Your task to perform on an android device: Open privacy settings Image 0: 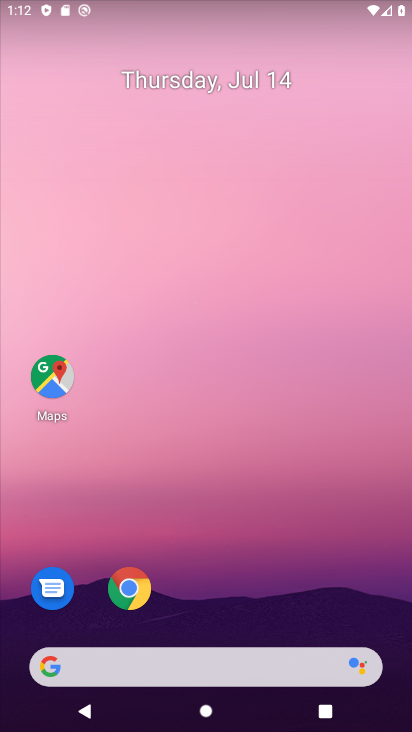
Step 0: drag from (281, 702) to (358, 135)
Your task to perform on an android device: Open privacy settings Image 1: 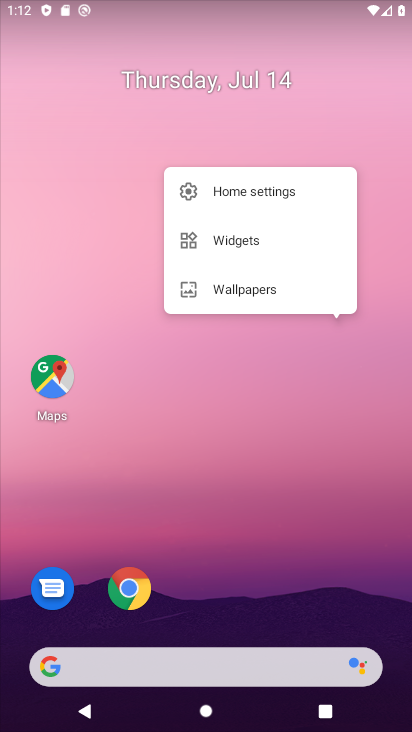
Step 1: click (262, 703)
Your task to perform on an android device: Open privacy settings Image 2: 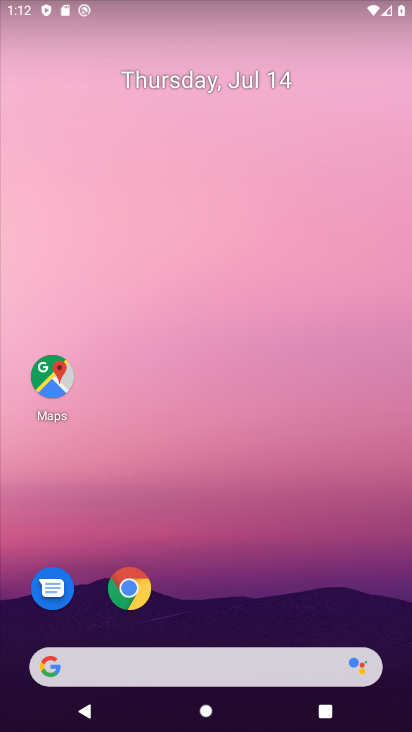
Step 2: drag from (262, 703) to (258, 32)
Your task to perform on an android device: Open privacy settings Image 3: 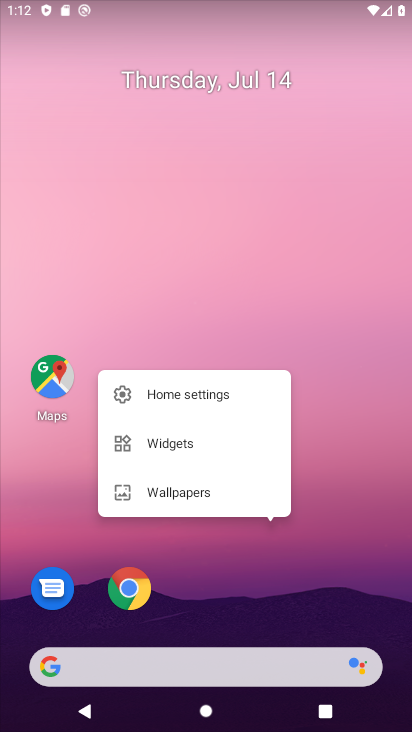
Step 3: click (235, 703)
Your task to perform on an android device: Open privacy settings Image 4: 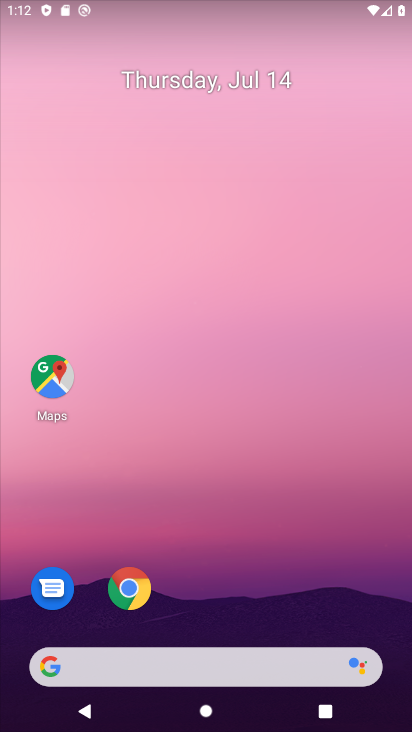
Step 4: drag from (271, 584) to (350, 12)
Your task to perform on an android device: Open privacy settings Image 5: 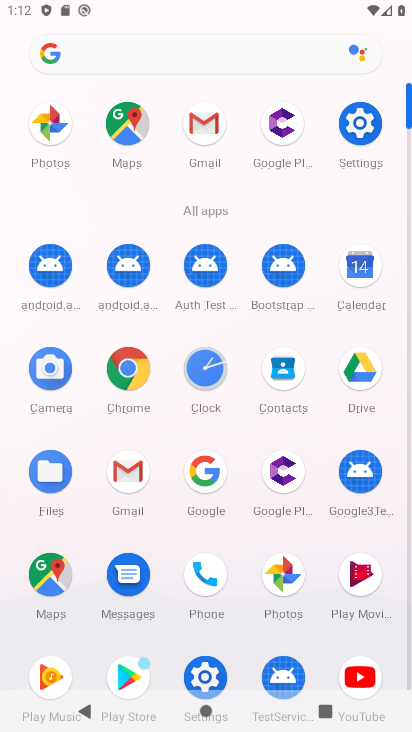
Step 5: click (365, 158)
Your task to perform on an android device: Open privacy settings Image 6: 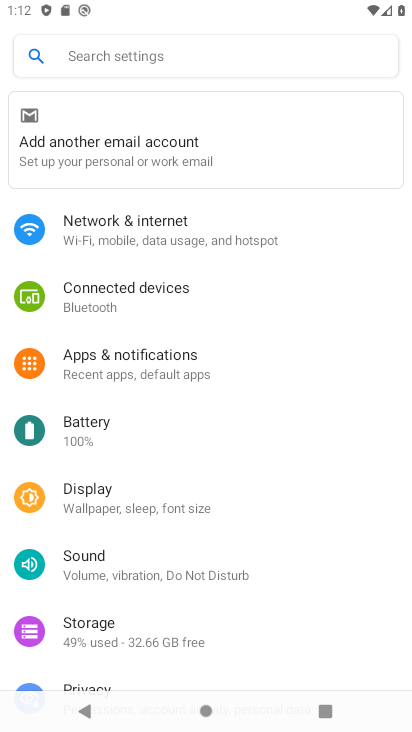
Step 6: drag from (235, 593) to (288, 143)
Your task to perform on an android device: Open privacy settings Image 7: 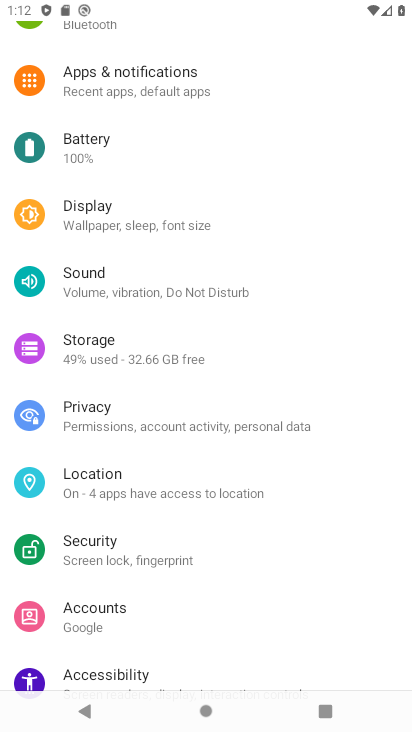
Step 7: click (231, 413)
Your task to perform on an android device: Open privacy settings Image 8: 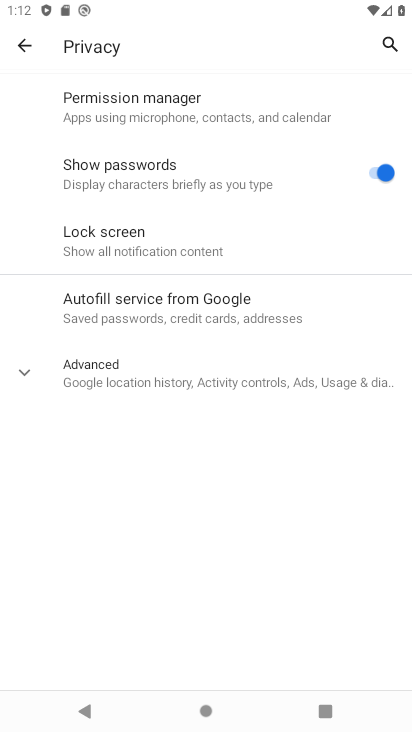
Step 8: task complete